Your task to perform on an android device: add a label to a message in the gmail app Image 0: 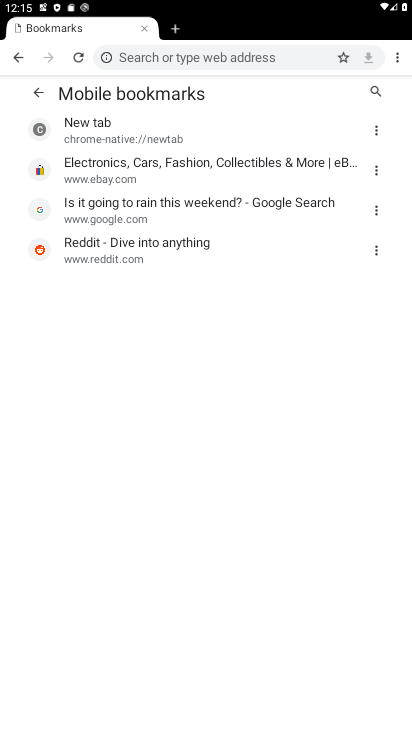
Step 0: press home button
Your task to perform on an android device: add a label to a message in the gmail app Image 1: 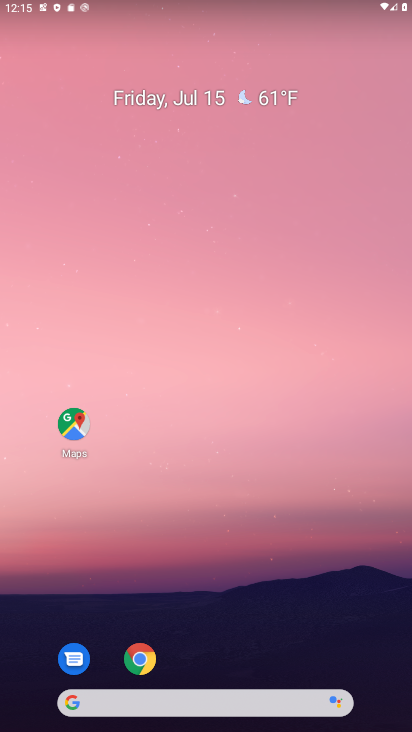
Step 1: drag from (196, 703) to (205, 338)
Your task to perform on an android device: add a label to a message in the gmail app Image 2: 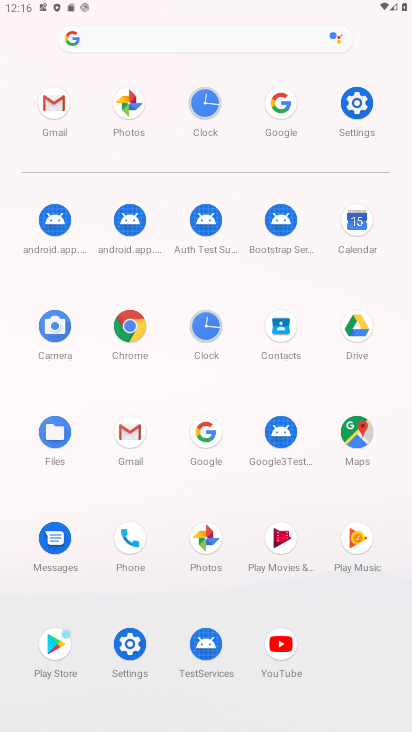
Step 2: click (54, 103)
Your task to perform on an android device: add a label to a message in the gmail app Image 3: 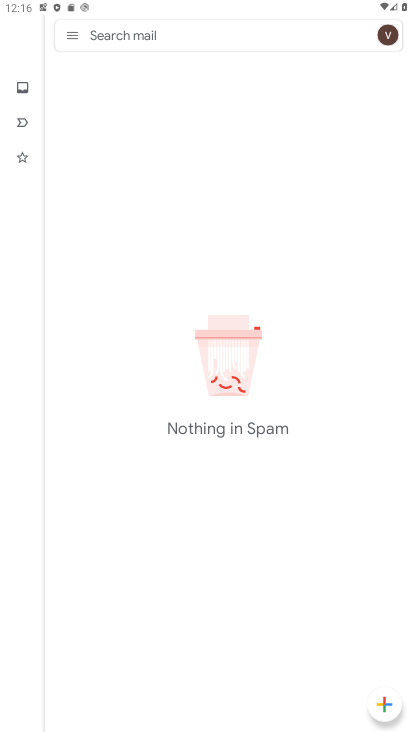
Step 3: click (68, 33)
Your task to perform on an android device: add a label to a message in the gmail app Image 4: 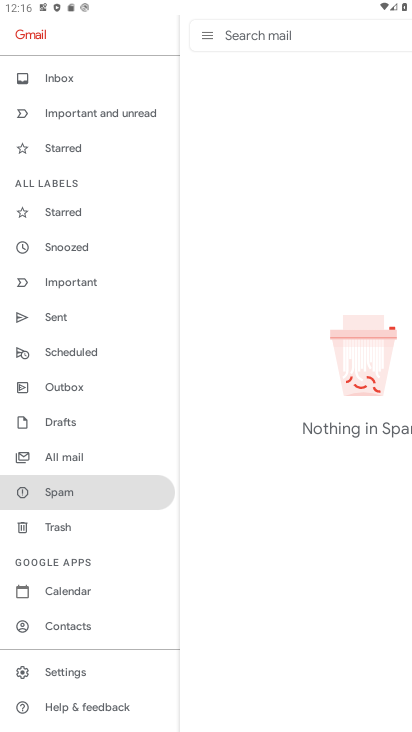
Step 4: click (59, 122)
Your task to perform on an android device: add a label to a message in the gmail app Image 5: 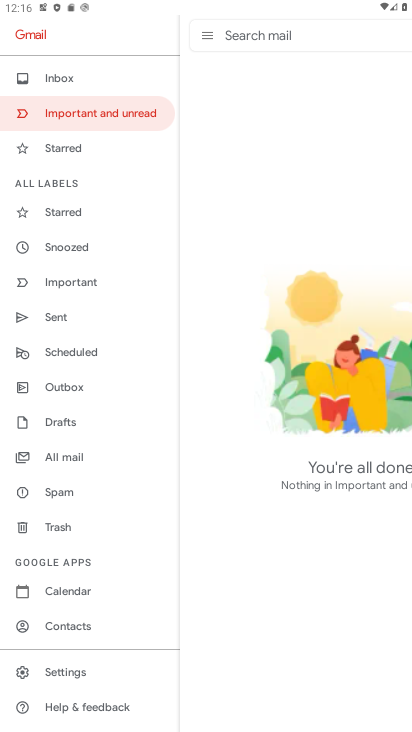
Step 5: click (73, 162)
Your task to perform on an android device: add a label to a message in the gmail app Image 6: 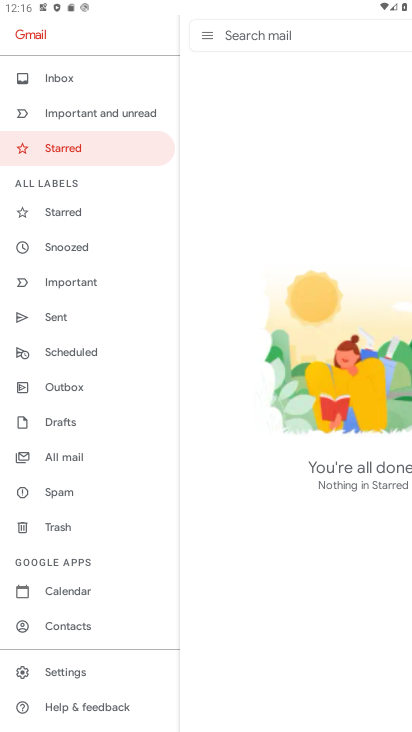
Step 6: click (68, 217)
Your task to perform on an android device: add a label to a message in the gmail app Image 7: 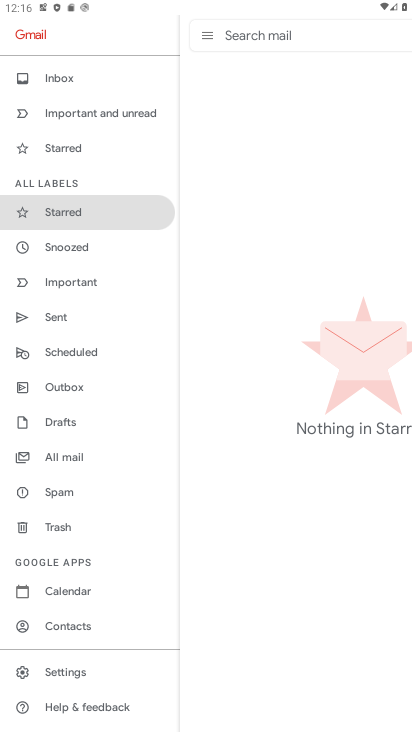
Step 7: click (67, 253)
Your task to perform on an android device: add a label to a message in the gmail app Image 8: 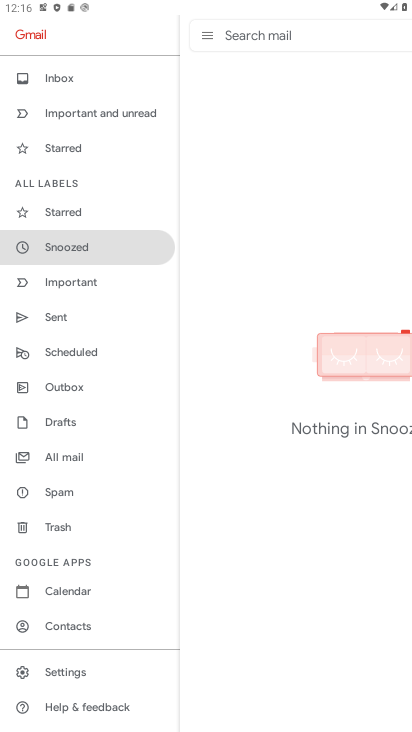
Step 8: click (69, 282)
Your task to perform on an android device: add a label to a message in the gmail app Image 9: 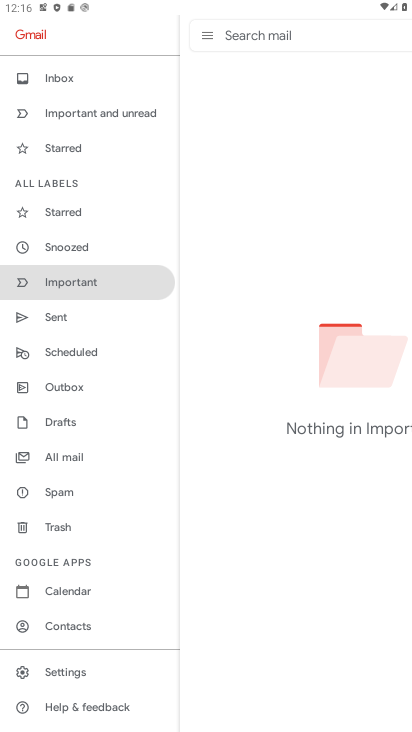
Step 9: click (76, 312)
Your task to perform on an android device: add a label to a message in the gmail app Image 10: 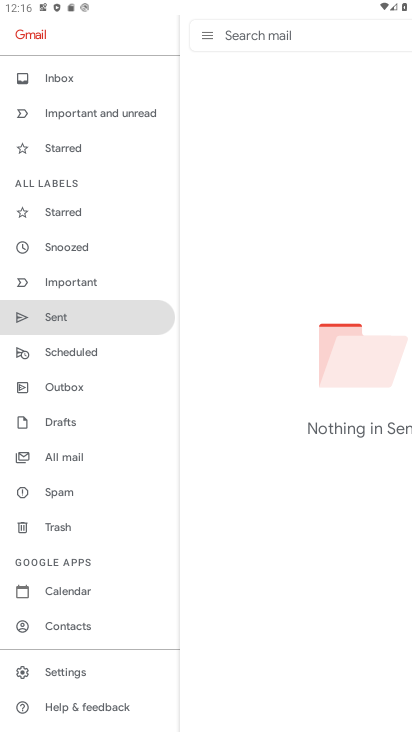
Step 10: click (75, 349)
Your task to perform on an android device: add a label to a message in the gmail app Image 11: 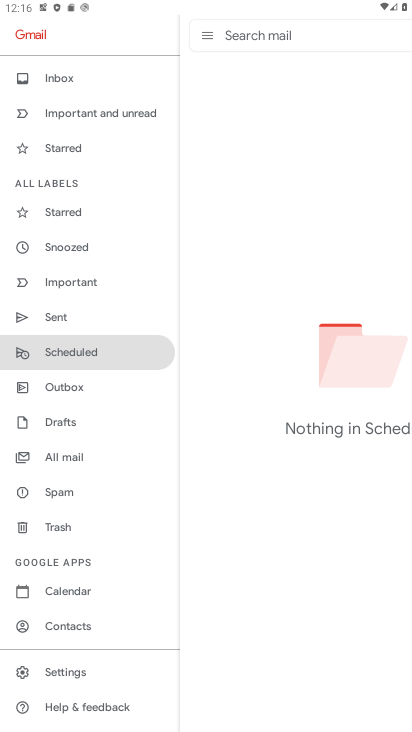
Step 11: click (72, 381)
Your task to perform on an android device: add a label to a message in the gmail app Image 12: 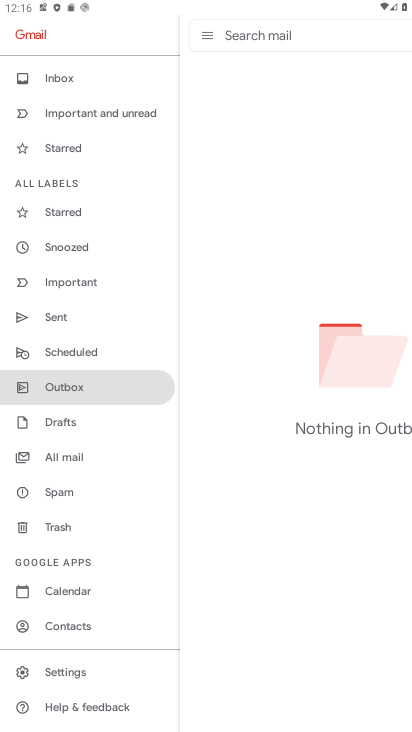
Step 12: click (68, 416)
Your task to perform on an android device: add a label to a message in the gmail app Image 13: 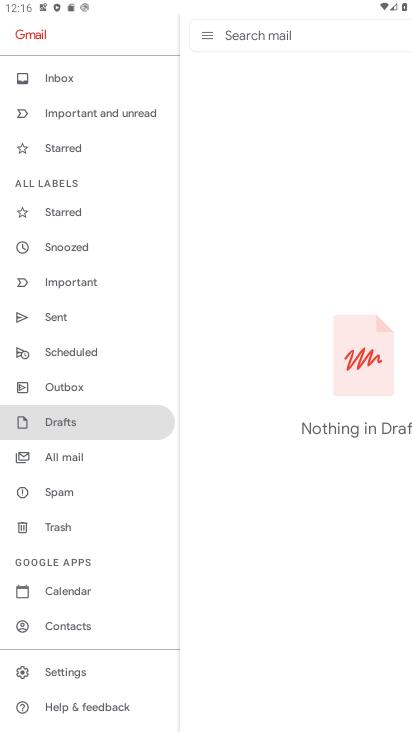
Step 13: click (70, 452)
Your task to perform on an android device: add a label to a message in the gmail app Image 14: 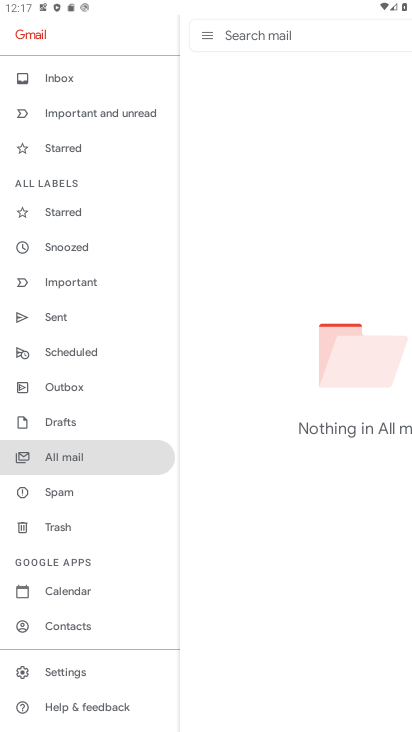
Step 14: click (70, 493)
Your task to perform on an android device: add a label to a message in the gmail app Image 15: 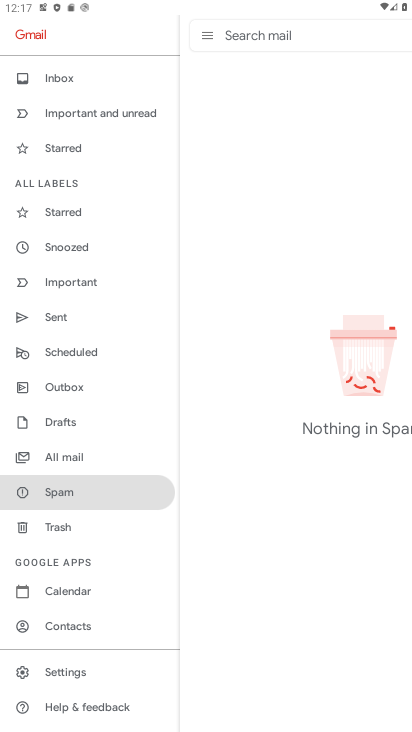
Step 15: click (77, 532)
Your task to perform on an android device: add a label to a message in the gmail app Image 16: 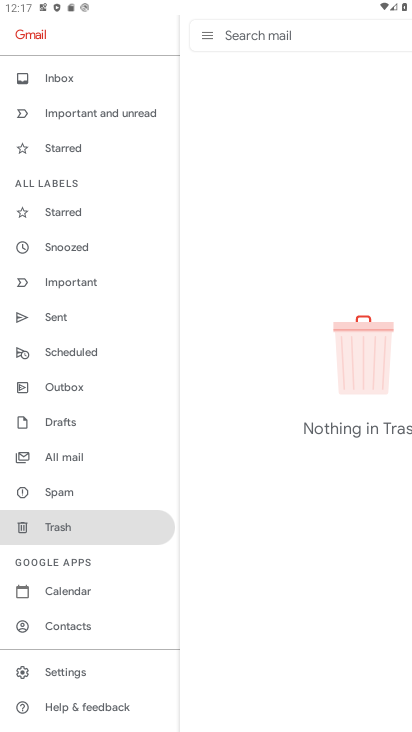
Step 16: task complete